Your task to perform on an android device: Go to CNN.com Image 0: 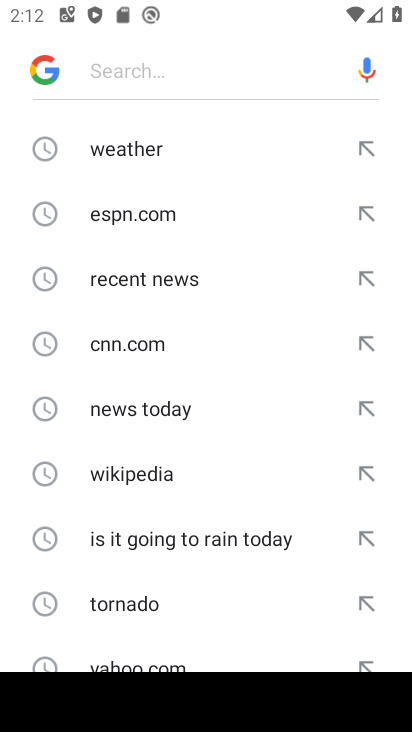
Step 0: click (258, 342)
Your task to perform on an android device: Go to CNN.com Image 1: 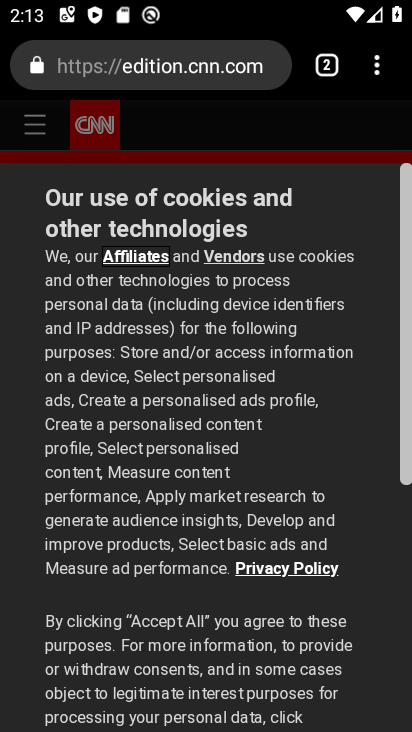
Step 1: task complete